Your task to perform on an android device: What's the weather today? Image 0: 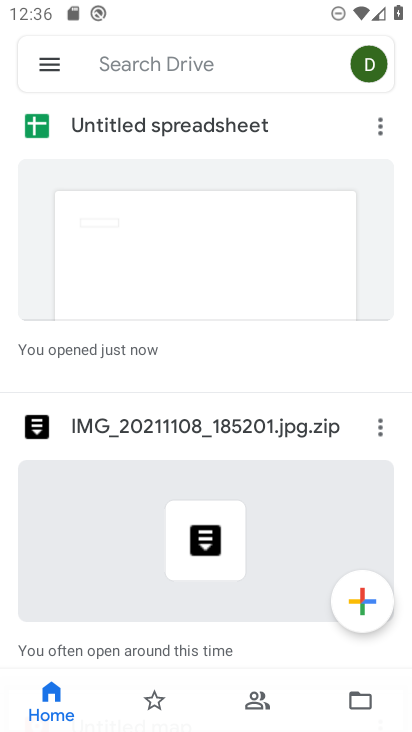
Step 0: press home button
Your task to perform on an android device: What's the weather today? Image 1: 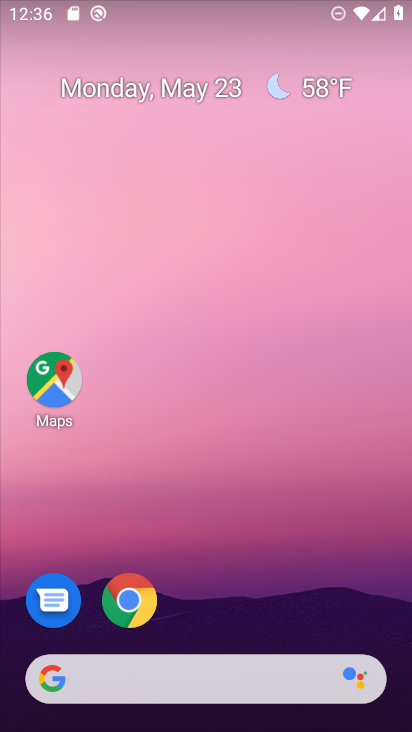
Step 1: drag from (256, 516) to (207, 29)
Your task to perform on an android device: What's the weather today? Image 2: 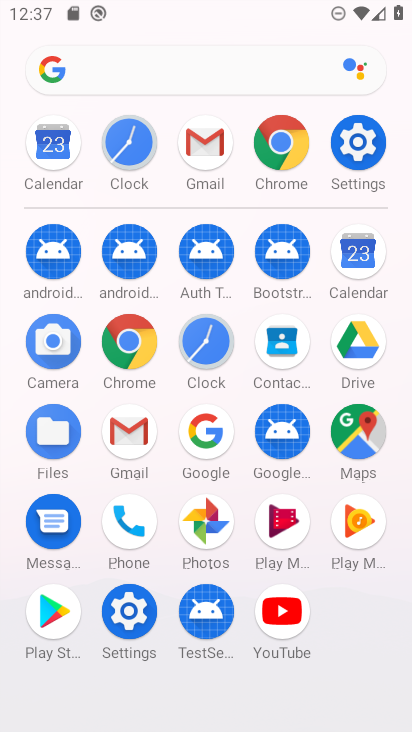
Step 2: press home button
Your task to perform on an android device: What's the weather today? Image 3: 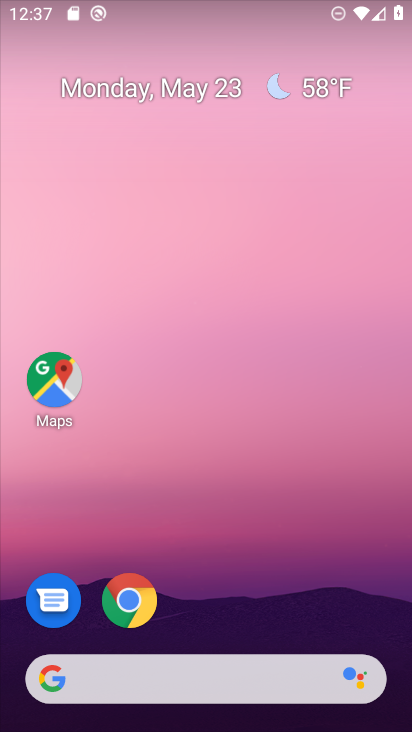
Step 3: click (340, 95)
Your task to perform on an android device: What's the weather today? Image 4: 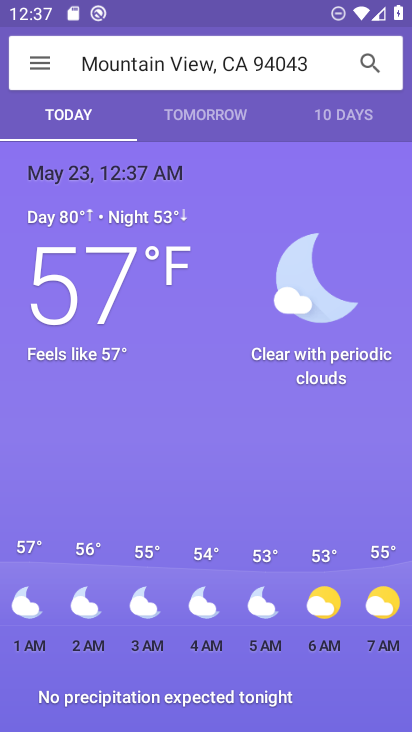
Step 4: task complete